Your task to perform on an android device: add a label to a message in the gmail app Image 0: 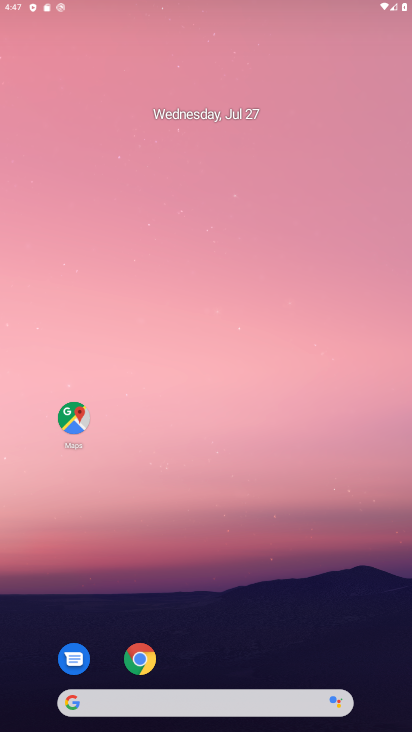
Step 0: click (291, 51)
Your task to perform on an android device: add a label to a message in the gmail app Image 1: 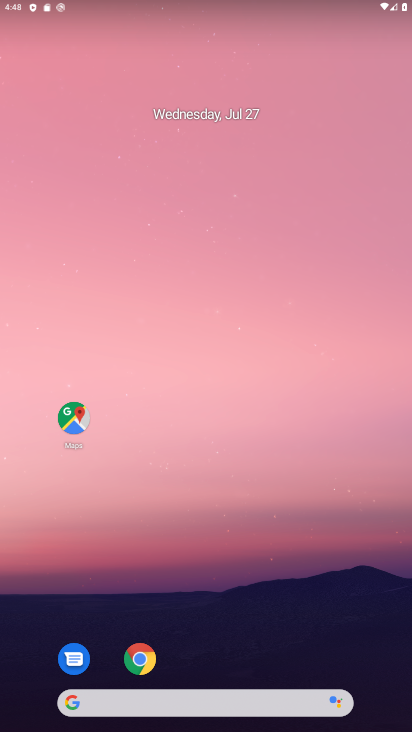
Step 1: drag from (253, 640) to (292, 95)
Your task to perform on an android device: add a label to a message in the gmail app Image 2: 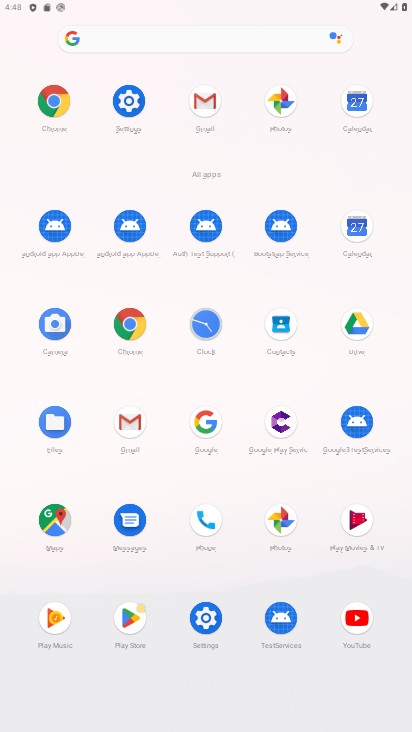
Step 2: click (122, 422)
Your task to perform on an android device: add a label to a message in the gmail app Image 3: 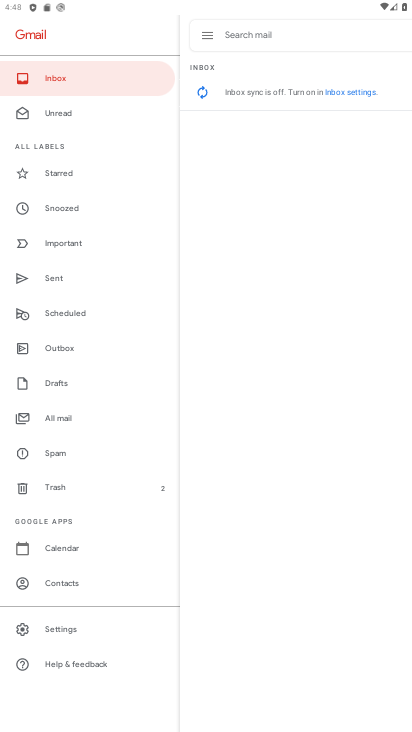
Step 3: task complete